Your task to perform on an android device: turn off data saver in the chrome app Image 0: 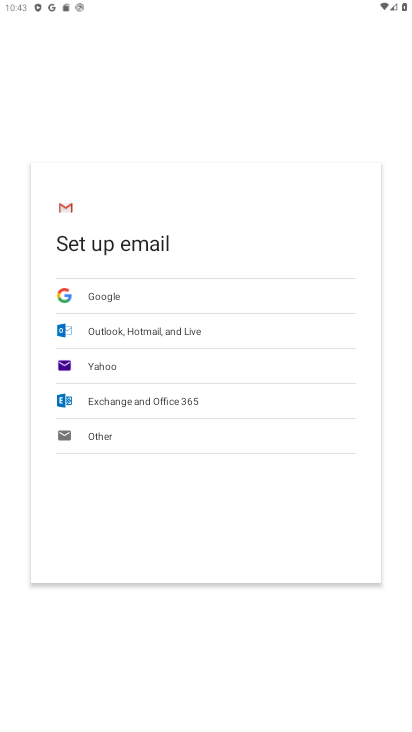
Step 0: press home button
Your task to perform on an android device: turn off data saver in the chrome app Image 1: 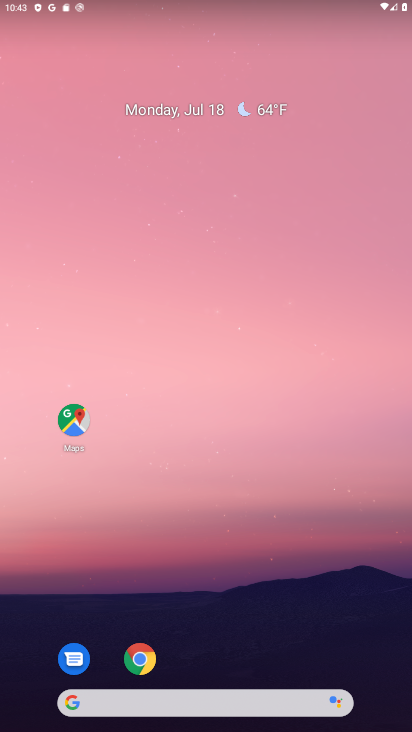
Step 1: click (140, 666)
Your task to perform on an android device: turn off data saver in the chrome app Image 2: 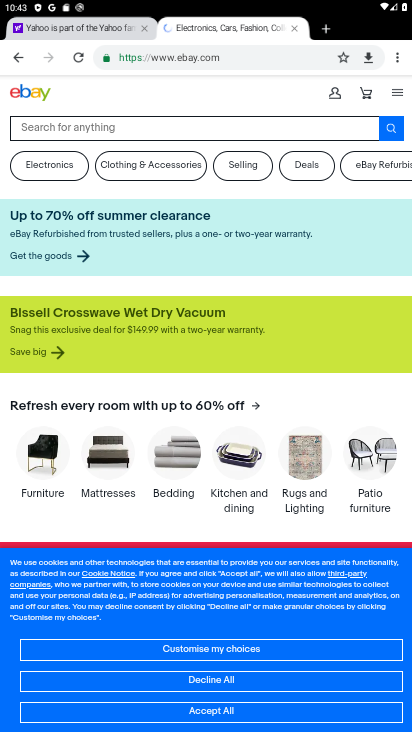
Step 2: drag from (396, 59) to (313, 416)
Your task to perform on an android device: turn off data saver in the chrome app Image 3: 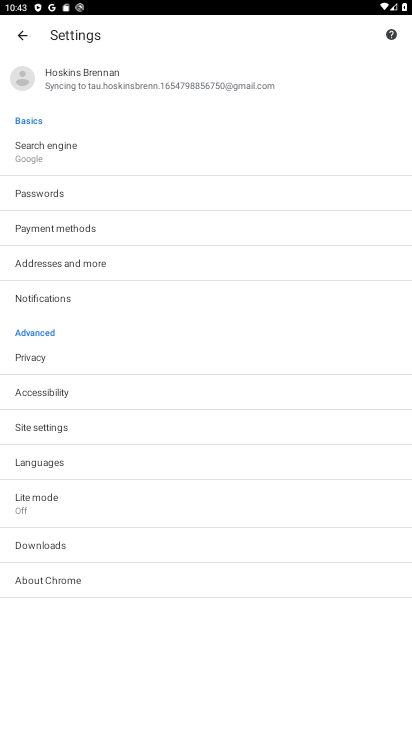
Step 3: click (31, 509)
Your task to perform on an android device: turn off data saver in the chrome app Image 4: 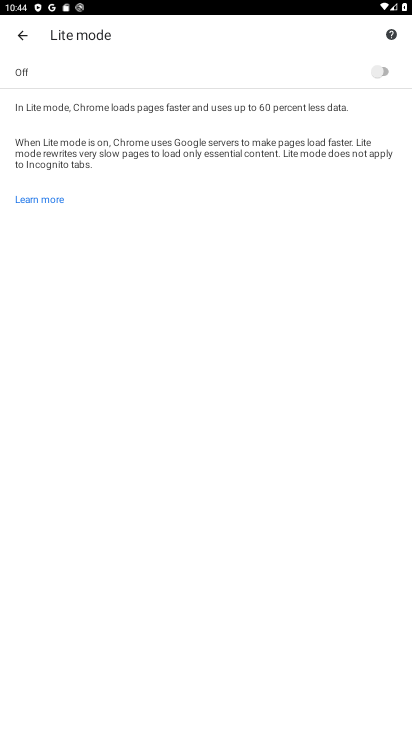
Step 4: task complete